Your task to perform on an android device: turn vacation reply on in the gmail app Image 0: 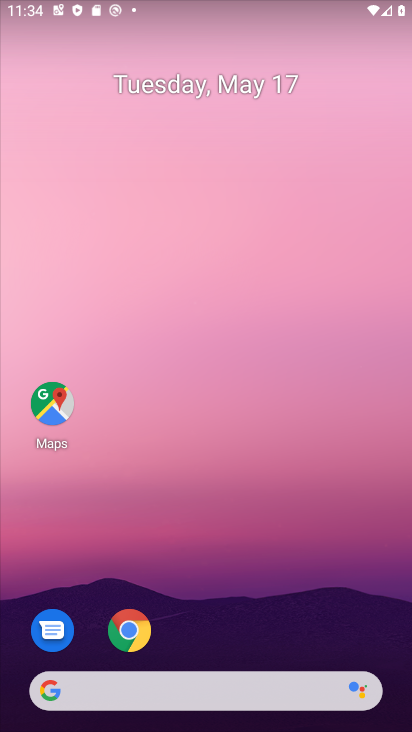
Step 0: drag from (297, 601) to (288, 69)
Your task to perform on an android device: turn vacation reply on in the gmail app Image 1: 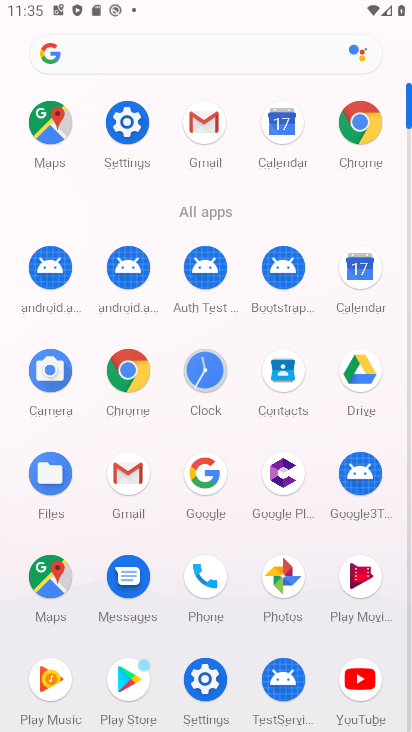
Step 1: click (138, 478)
Your task to perform on an android device: turn vacation reply on in the gmail app Image 2: 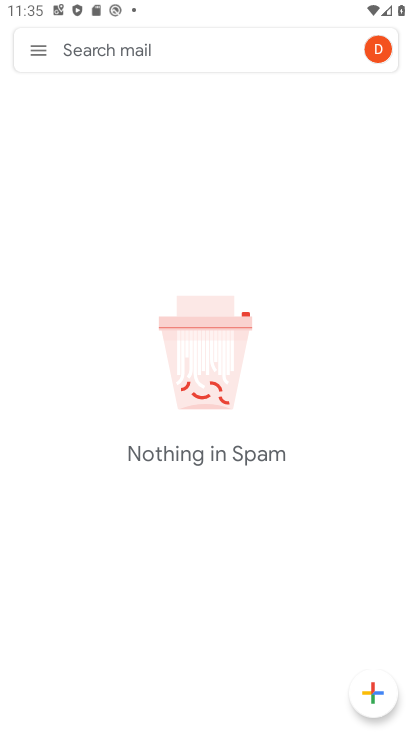
Step 2: click (28, 50)
Your task to perform on an android device: turn vacation reply on in the gmail app Image 3: 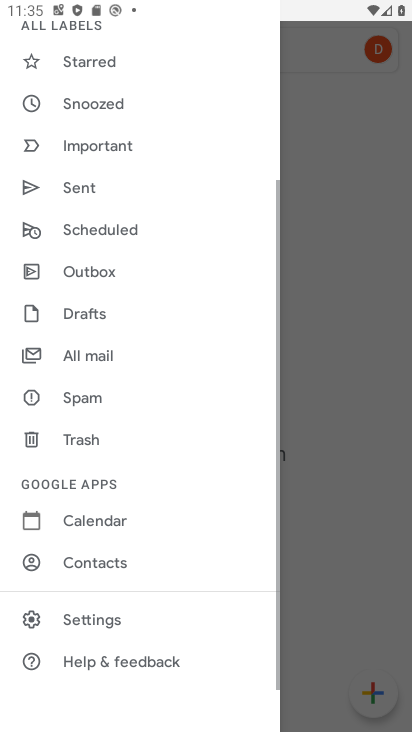
Step 3: click (109, 618)
Your task to perform on an android device: turn vacation reply on in the gmail app Image 4: 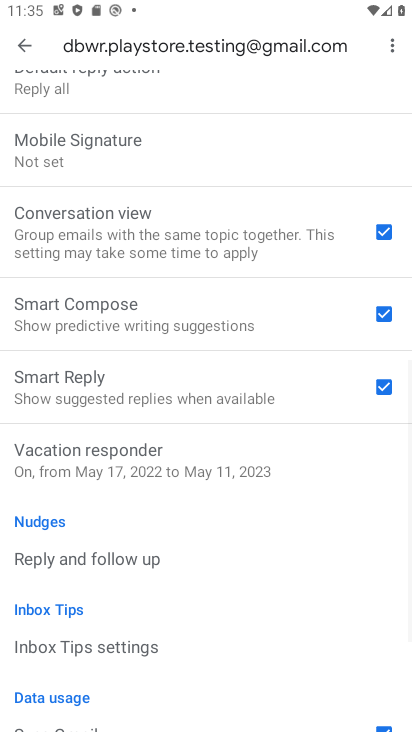
Step 4: click (175, 459)
Your task to perform on an android device: turn vacation reply on in the gmail app Image 5: 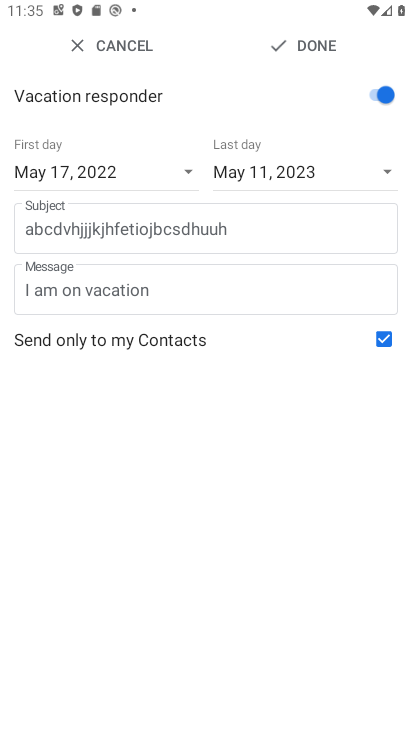
Step 5: task complete